Your task to perform on an android device: check google app version Image 0: 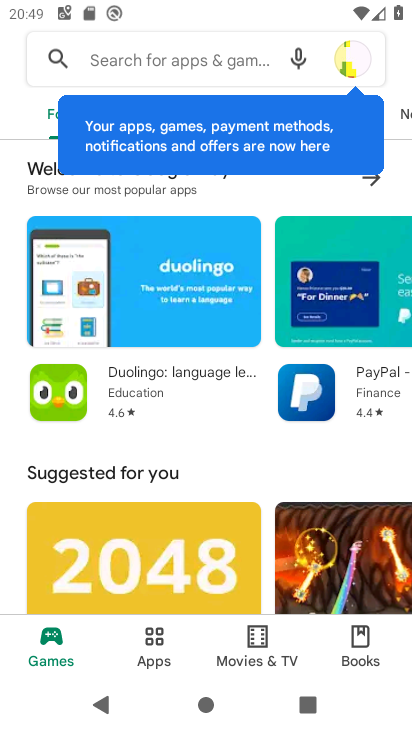
Step 0: press home button
Your task to perform on an android device: check google app version Image 1: 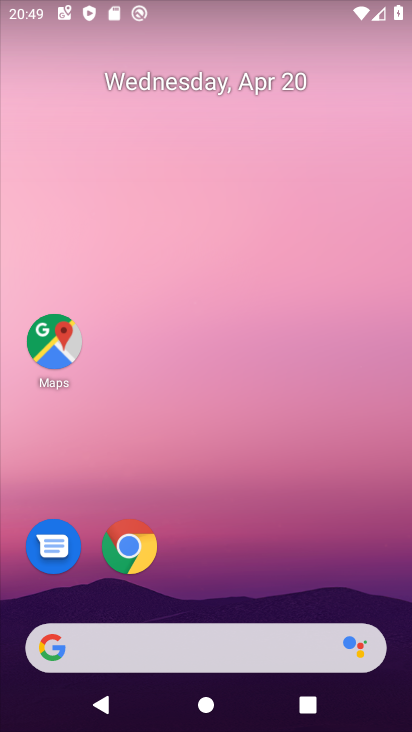
Step 1: drag from (262, 562) to (197, 73)
Your task to perform on an android device: check google app version Image 2: 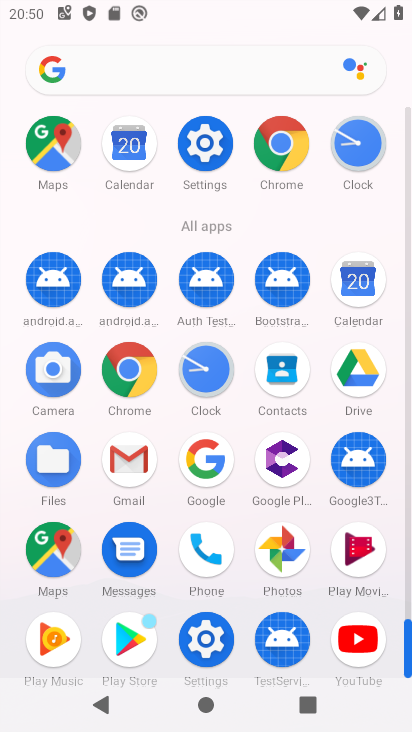
Step 2: click (196, 473)
Your task to perform on an android device: check google app version Image 3: 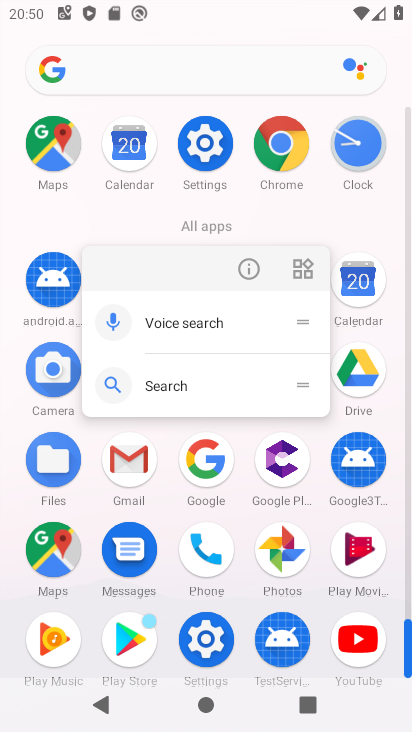
Step 3: click (245, 277)
Your task to perform on an android device: check google app version Image 4: 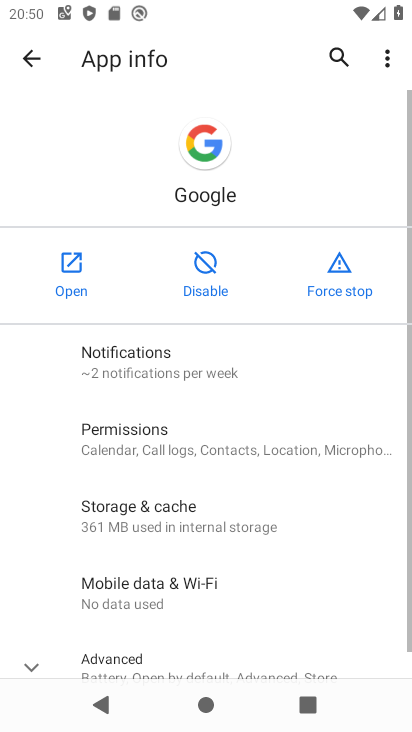
Step 4: drag from (295, 577) to (240, 105)
Your task to perform on an android device: check google app version Image 5: 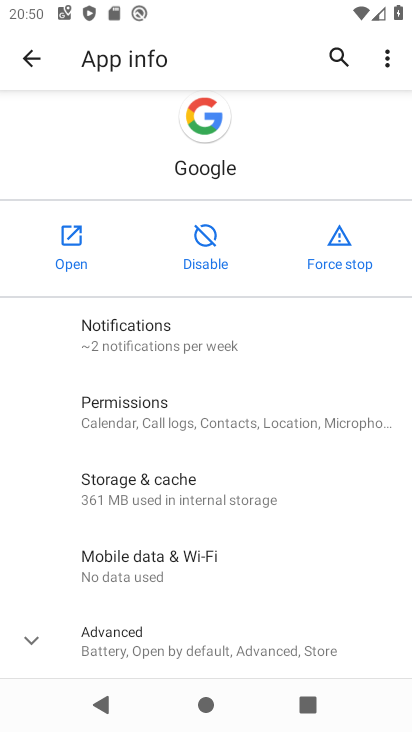
Step 5: click (164, 630)
Your task to perform on an android device: check google app version Image 6: 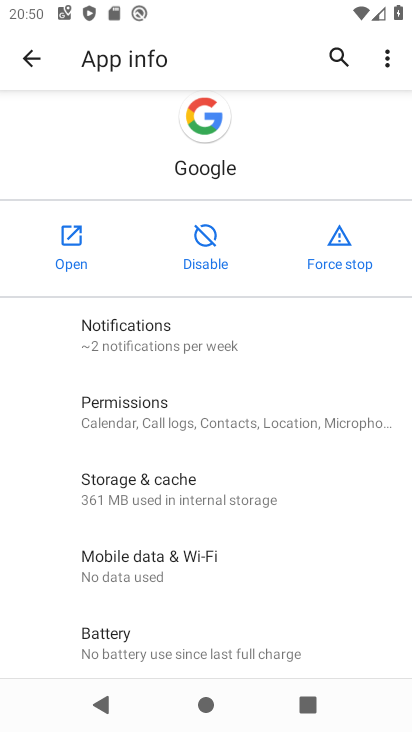
Step 6: task complete